Your task to perform on an android device: Go to wifi settings Image 0: 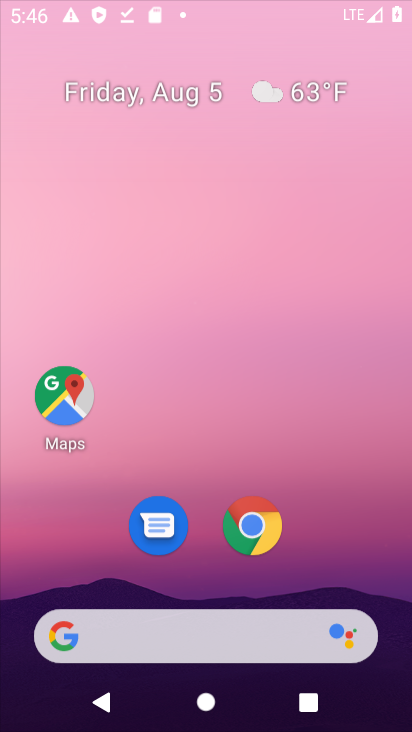
Step 0: click (282, 142)
Your task to perform on an android device: Go to wifi settings Image 1: 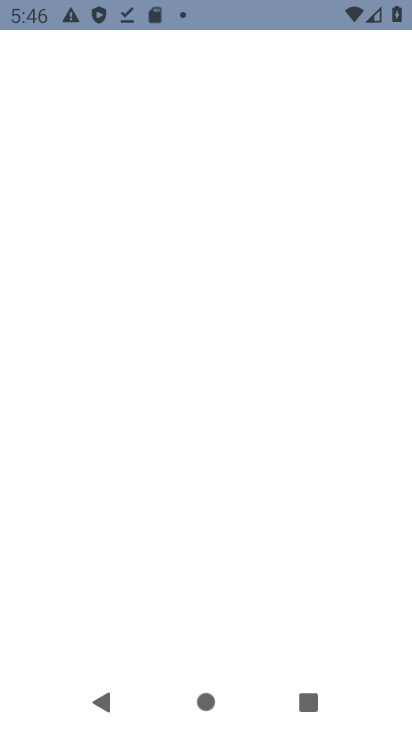
Step 1: drag from (208, 559) to (286, 123)
Your task to perform on an android device: Go to wifi settings Image 2: 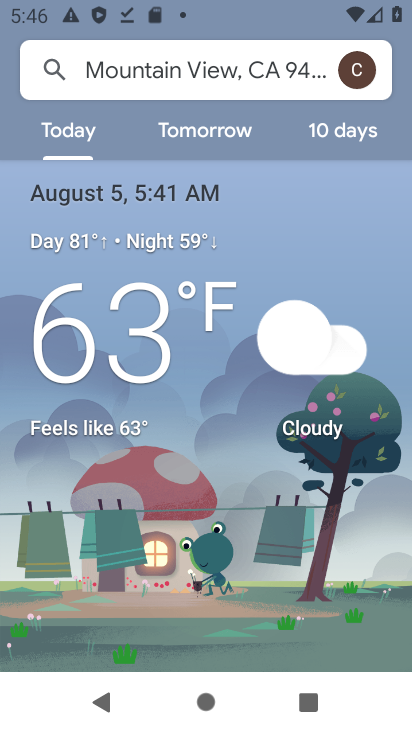
Step 2: press home button
Your task to perform on an android device: Go to wifi settings Image 3: 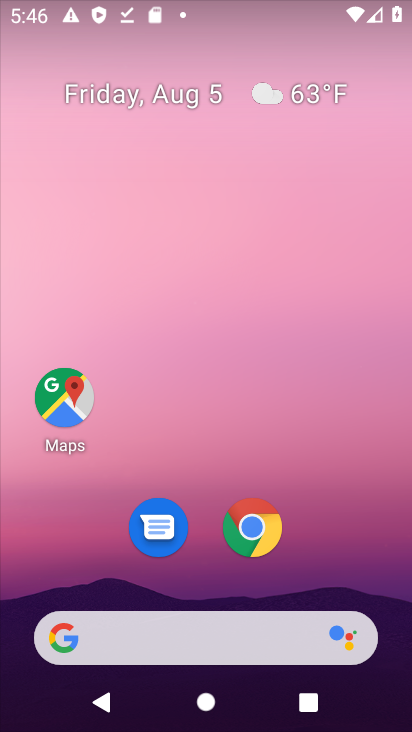
Step 3: drag from (224, 560) to (253, 238)
Your task to perform on an android device: Go to wifi settings Image 4: 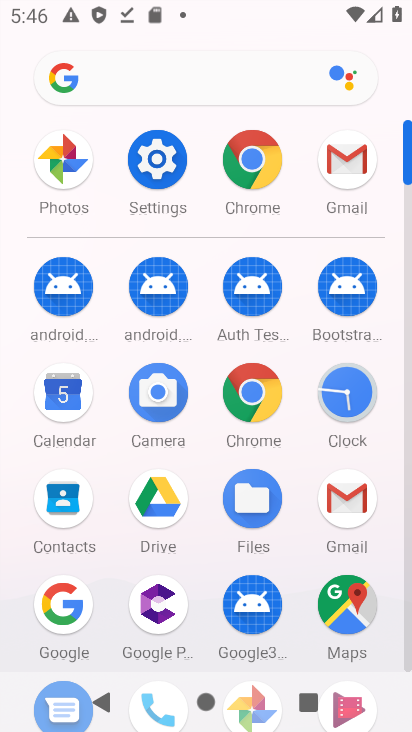
Step 4: click (121, 169)
Your task to perform on an android device: Go to wifi settings Image 5: 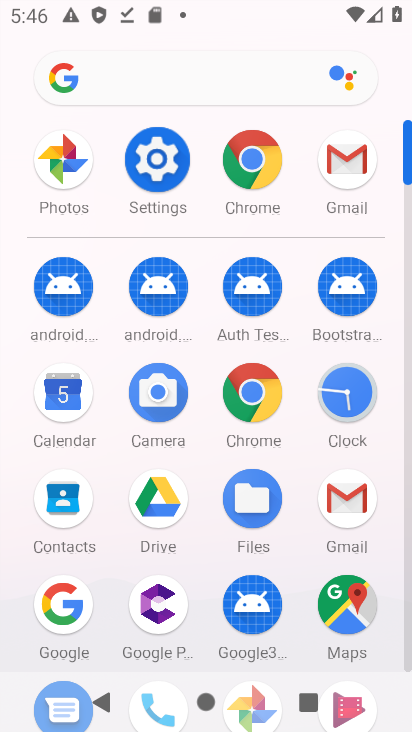
Step 5: click (153, 173)
Your task to perform on an android device: Go to wifi settings Image 6: 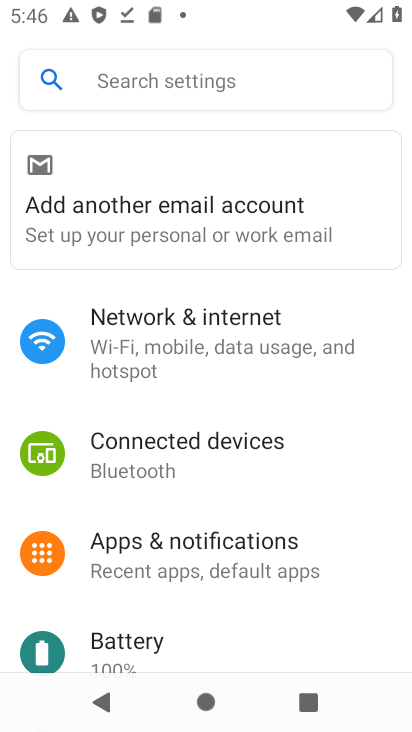
Step 6: drag from (147, 509) to (214, 247)
Your task to perform on an android device: Go to wifi settings Image 7: 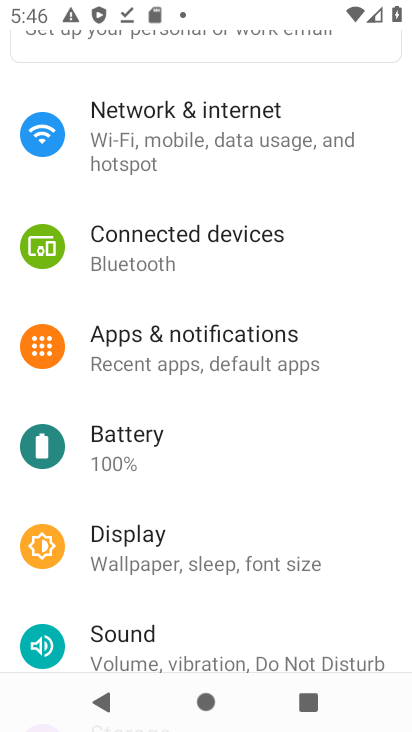
Step 7: click (218, 135)
Your task to perform on an android device: Go to wifi settings Image 8: 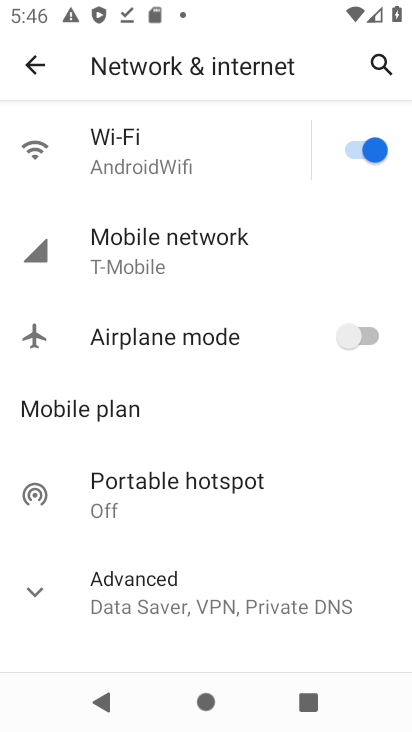
Step 8: click (226, 162)
Your task to perform on an android device: Go to wifi settings Image 9: 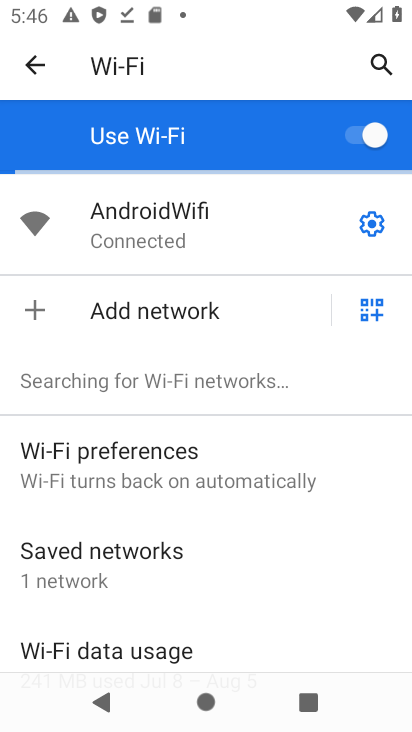
Step 9: click (365, 228)
Your task to perform on an android device: Go to wifi settings Image 10: 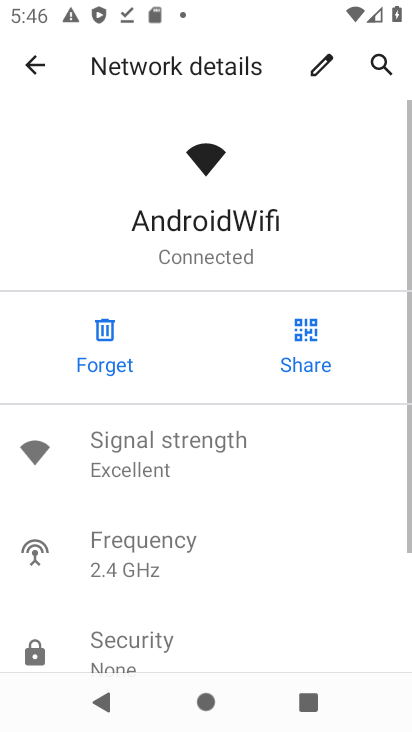
Step 10: task complete